Your task to perform on an android device: Go to display settings Image 0: 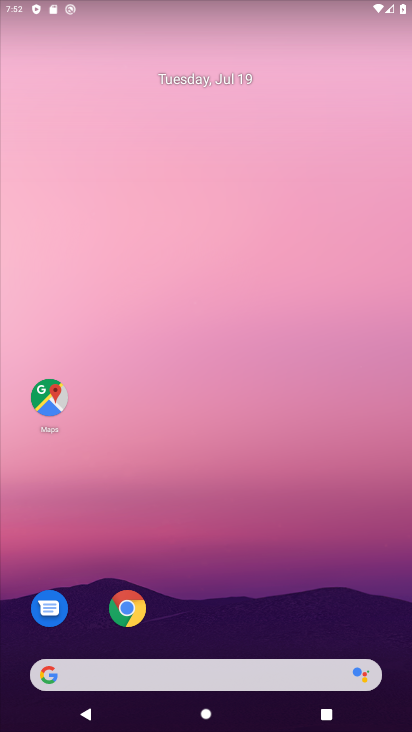
Step 0: click (190, 196)
Your task to perform on an android device: Go to display settings Image 1: 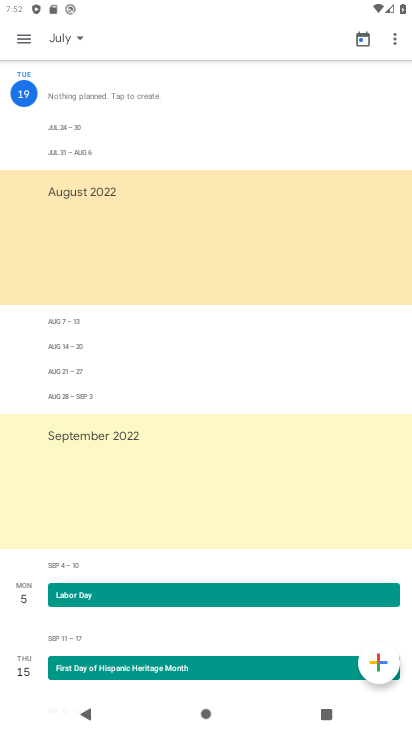
Step 1: press home button
Your task to perform on an android device: Go to display settings Image 2: 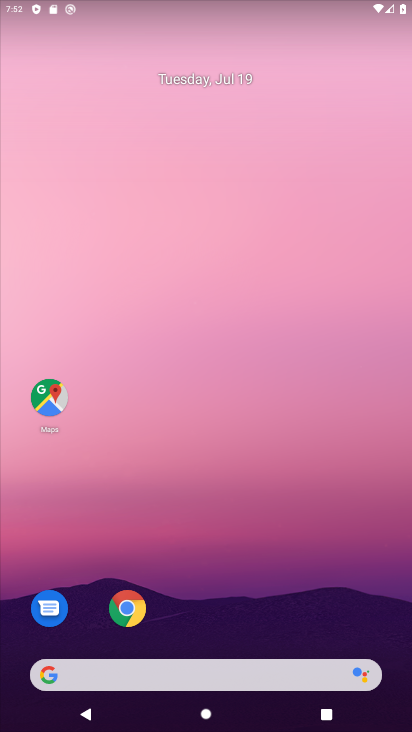
Step 2: drag from (176, 667) to (167, 130)
Your task to perform on an android device: Go to display settings Image 3: 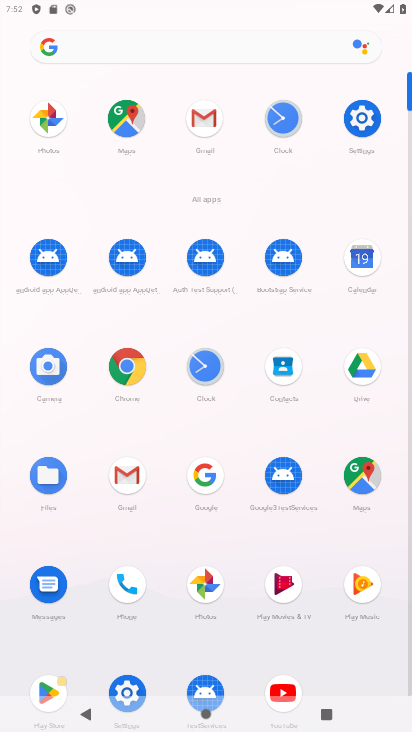
Step 3: click (352, 140)
Your task to perform on an android device: Go to display settings Image 4: 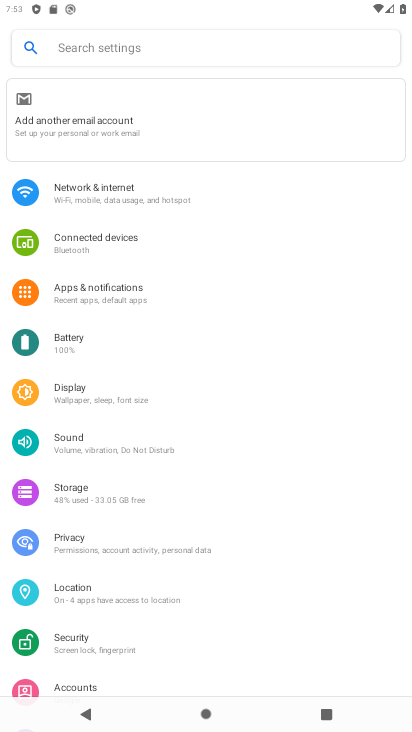
Step 4: click (73, 405)
Your task to perform on an android device: Go to display settings Image 5: 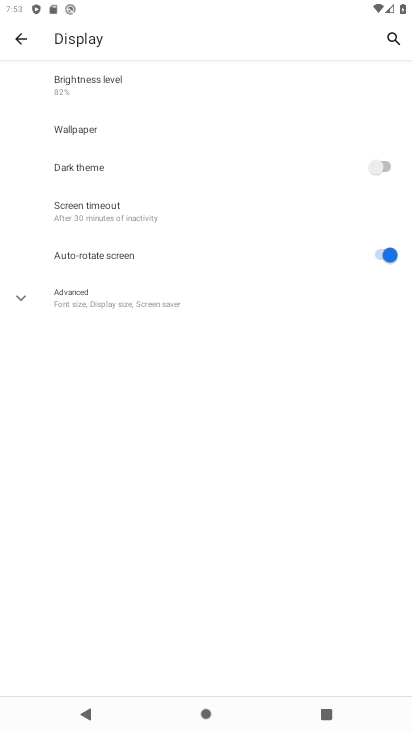
Step 5: click (68, 317)
Your task to perform on an android device: Go to display settings Image 6: 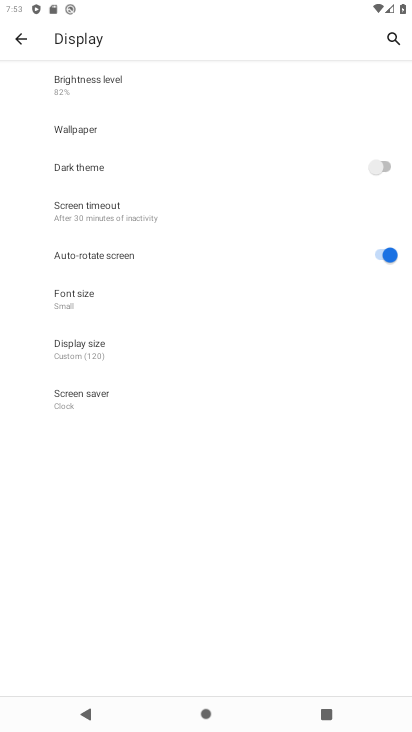
Step 6: task complete